Your task to perform on an android device: Open the calendar and show me this week's events? Image 0: 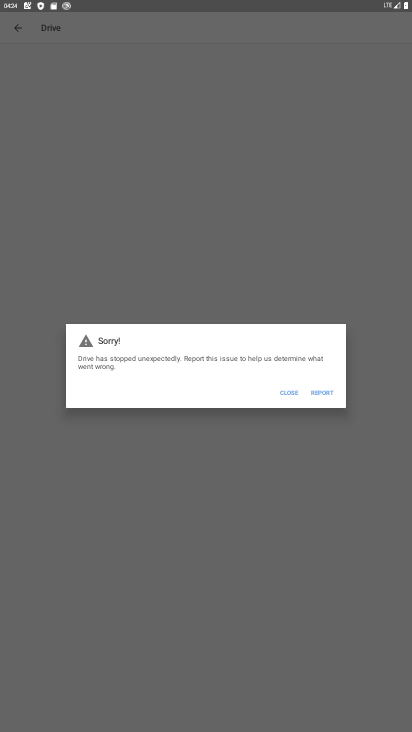
Step 0: press home button
Your task to perform on an android device: Open the calendar and show me this week's events? Image 1: 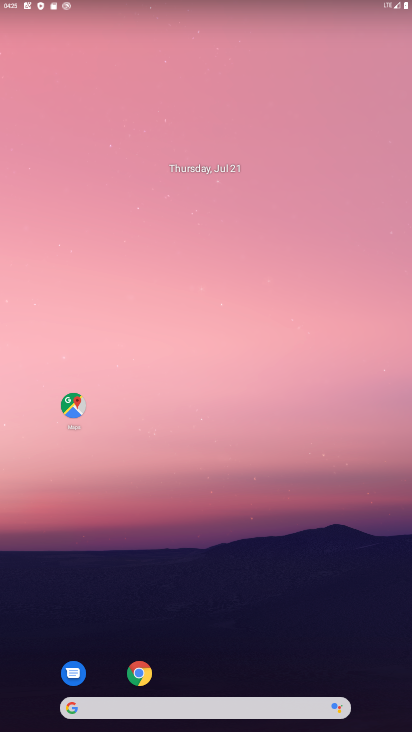
Step 1: drag from (322, 660) to (235, 113)
Your task to perform on an android device: Open the calendar and show me this week's events? Image 2: 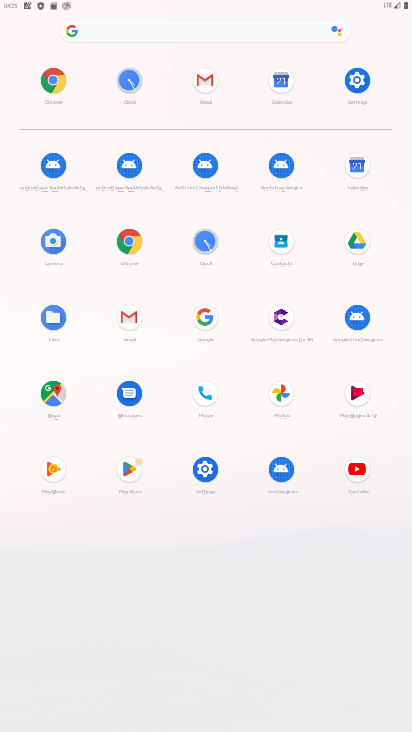
Step 2: click (365, 161)
Your task to perform on an android device: Open the calendar and show me this week's events? Image 3: 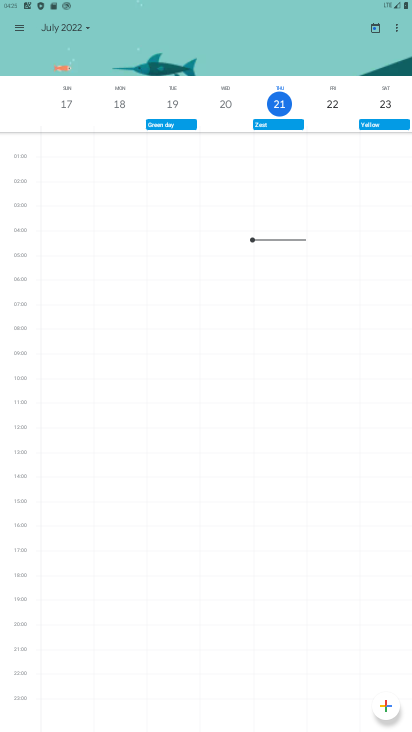
Step 3: click (55, 27)
Your task to perform on an android device: Open the calendar and show me this week's events? Image 4: 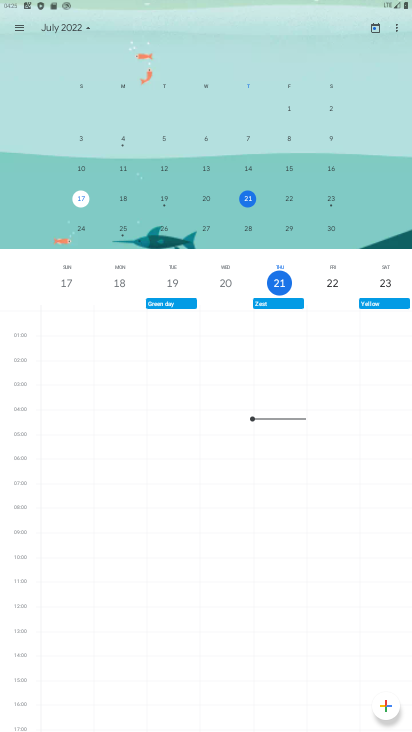
Step 4: task complete